Your task to perform on an android device: open app "Etsy: Buy & Sell Unique Items" (install if not already installed) and enter user name: "camp@inbox.com" and password: "unrelated" Image 0: 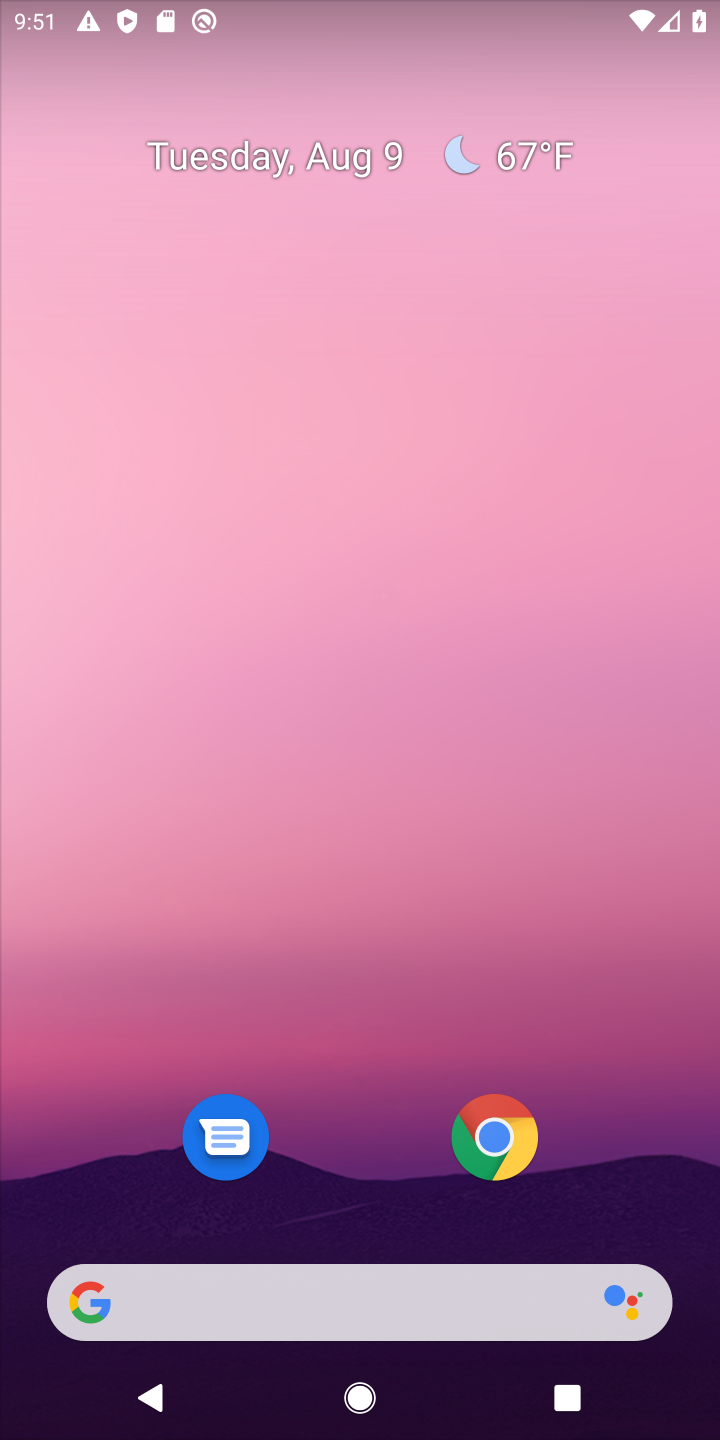
Step 0: drag from (539, 824) to (377, 293)
Your task to perform on an android device: open app "Etsy: Buy & Sell Unique Items" (install if not already installed) and enter user name: "camp@inbox.com" and password: "unrelated" Image 1: 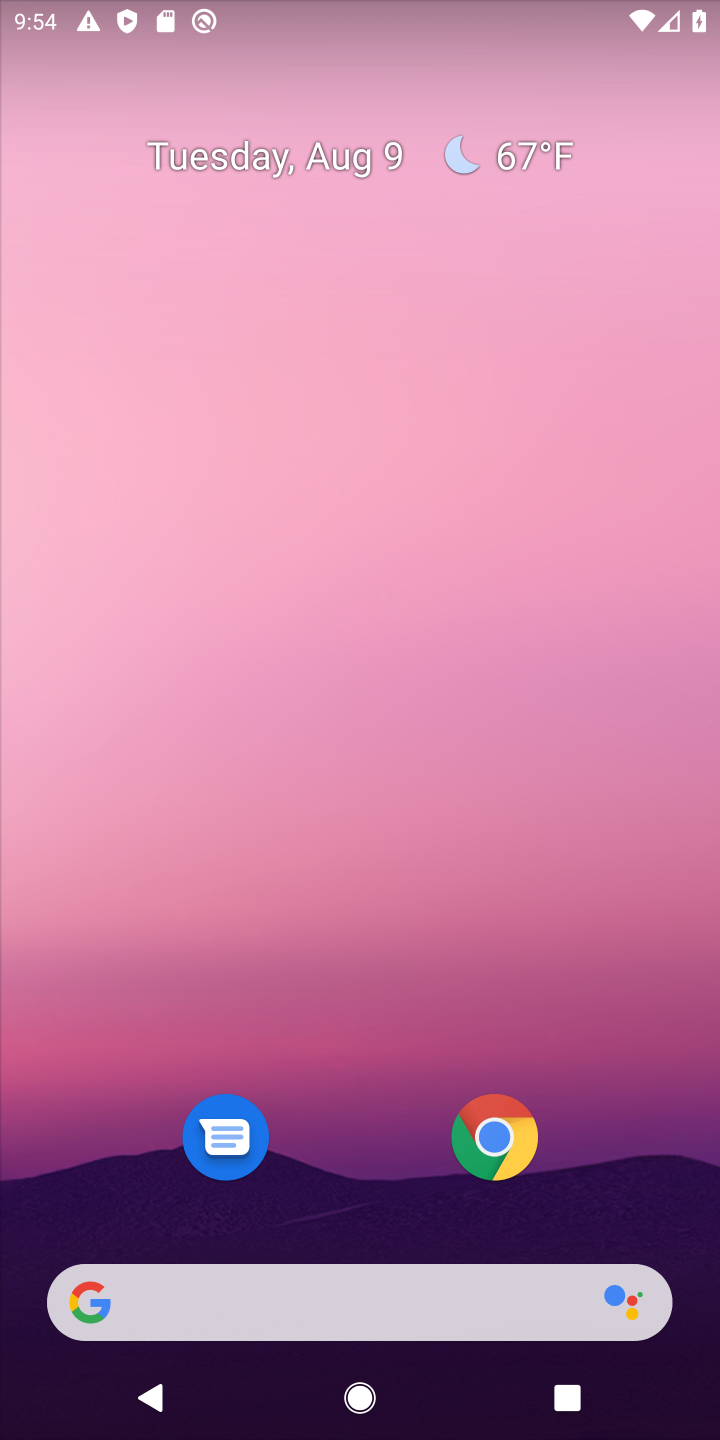
Step 1: drag from (650, 1062) to (420, 33)
Your task to perform on an android device: open app "Etsy: Buy & Sell Unique Items" (install if not already installed) and enter user name: "camp@inbox.com" and password: "unrelated" Image 2: 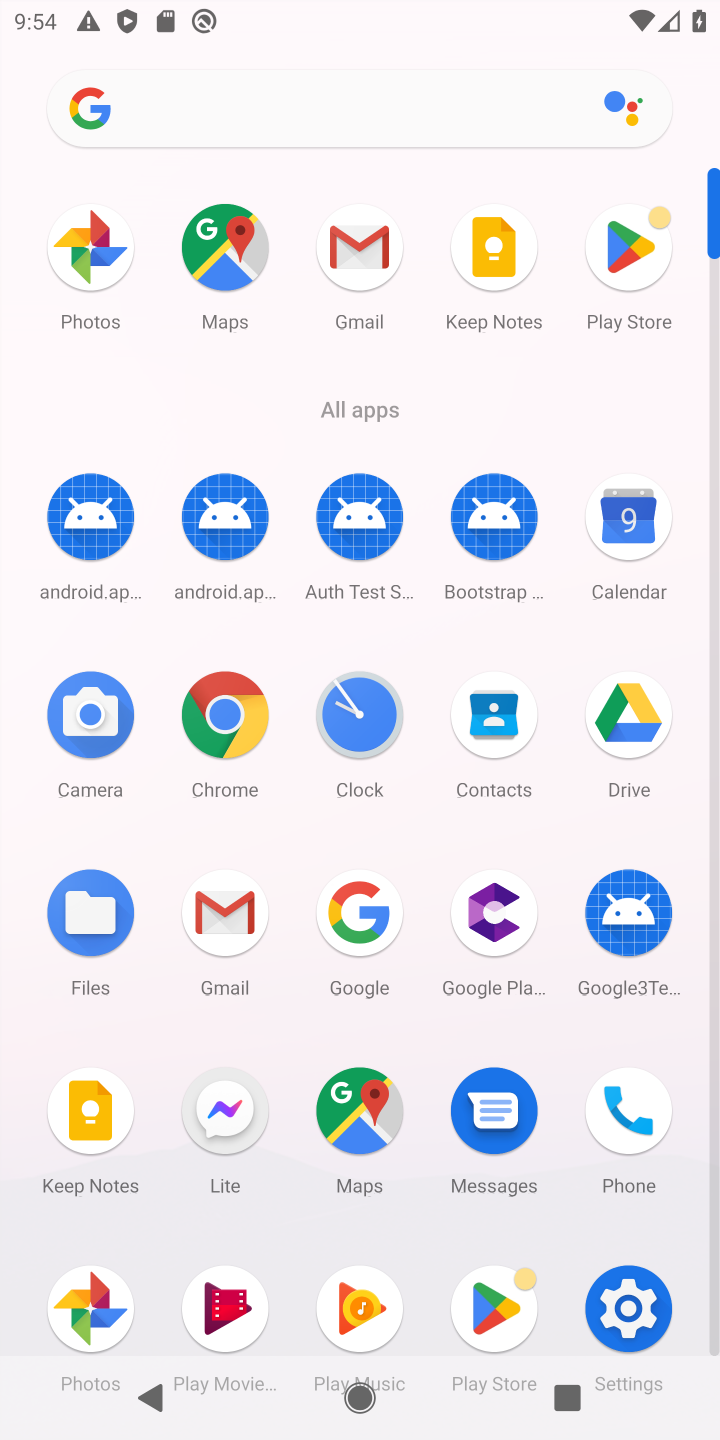
Step 2: click (650, 269)
Your task to perform on an android device: open app "Etsy: Buy & Sell Unique Items" (install if not already installed) and enter user name: "camp@inbox.com" and password: "unrelated" Image 3: 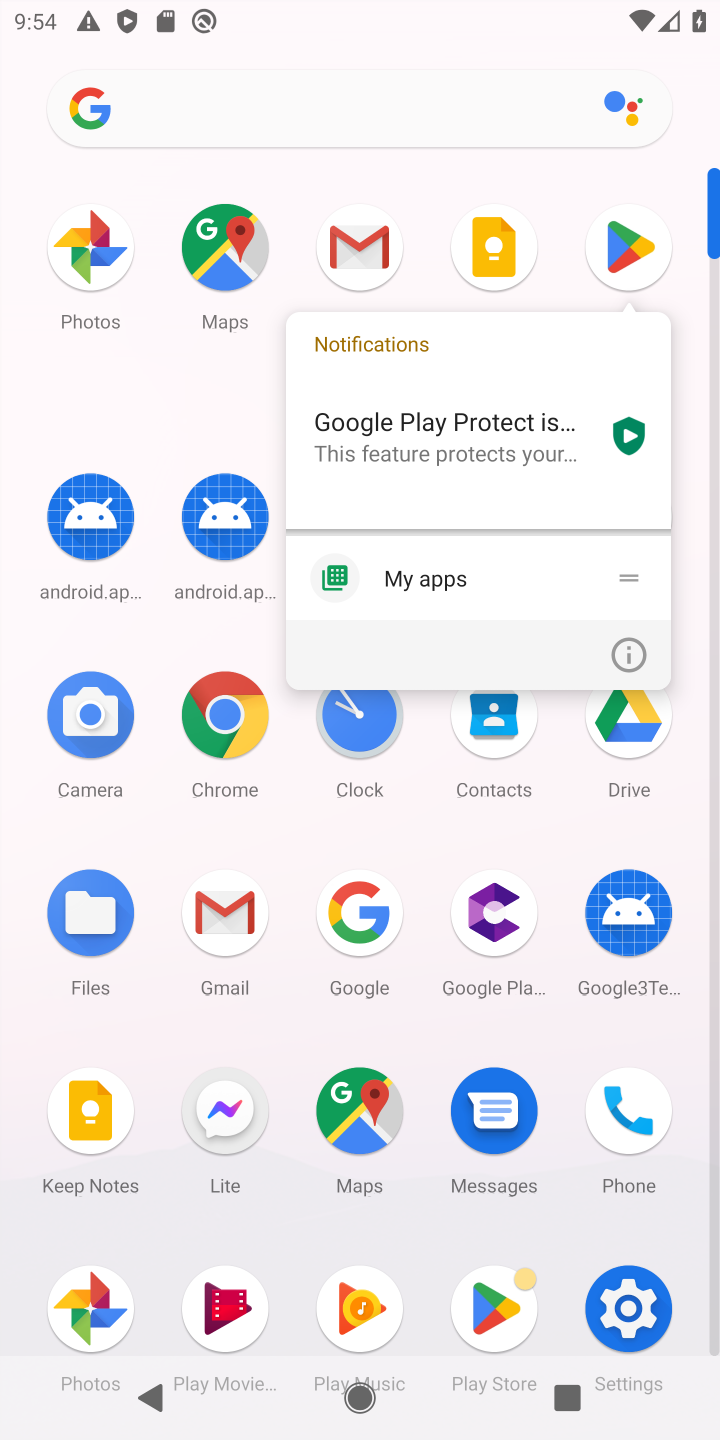
Step 3: click (650, 269)
Your task to perform on an android device: open app "Etsy: Buy & Sell Unique Items" (install if not already installed) and enter user name: "camp@inbox.com" and password: "unrelated" Image 4: 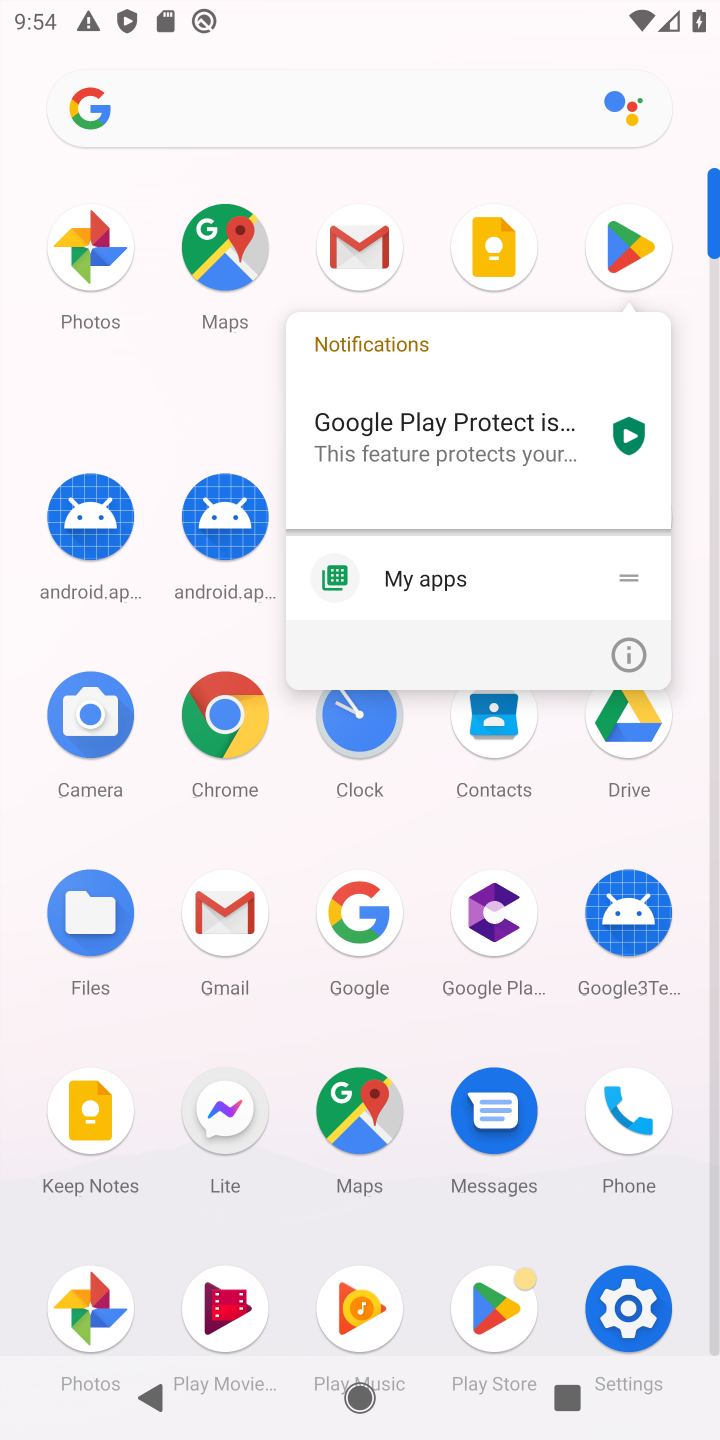
Step 4: click (639, 267)
Your task to perform on an android device: open app "Etsy: Buy & Sell Unique Items" (install if not already installed) and enter user name: "camp@inbox.com" and password: "unrelated" Image 5: 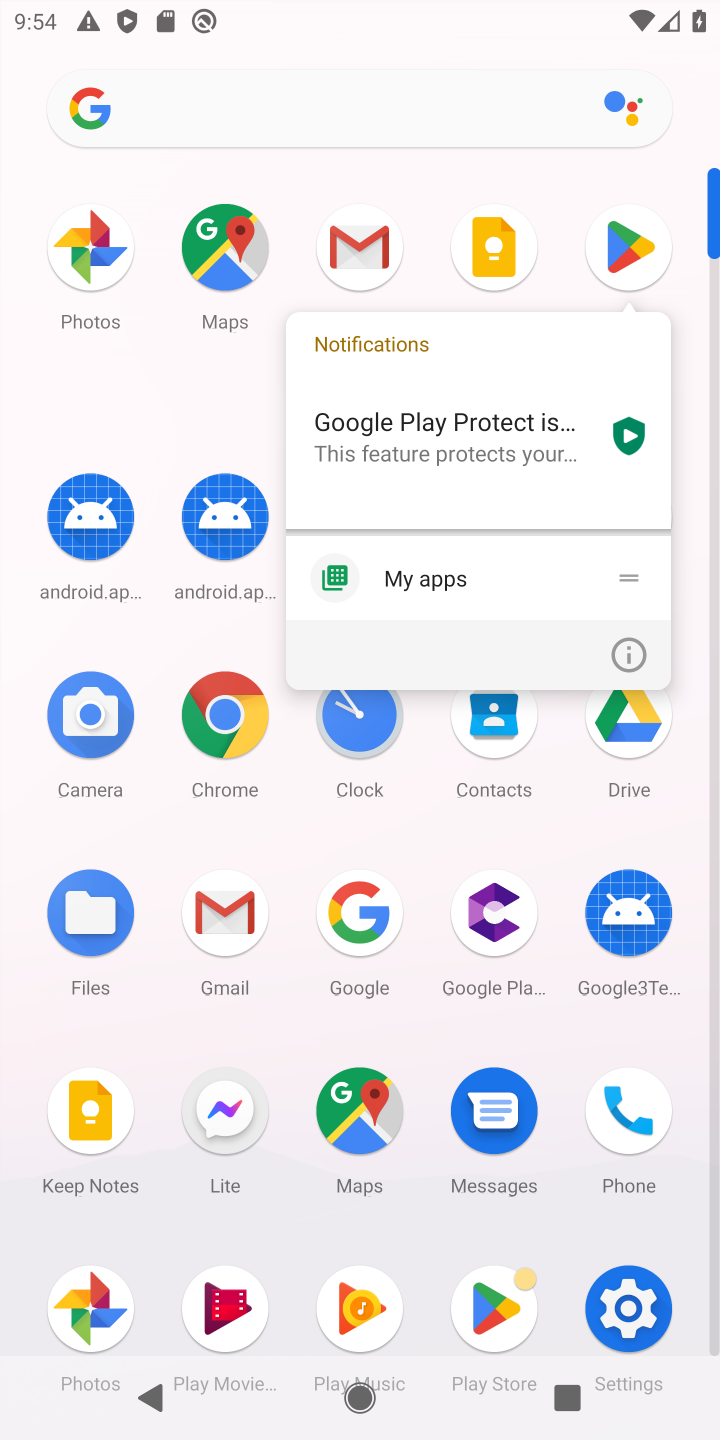
Step 5: click (639, 267)
Your task to perform on an android device: open app "Etsy: Buy & Sell Unique Items" (install if not already installed) and enter user name: "camp@inbox.com" and password: "unrelated" Image 6: 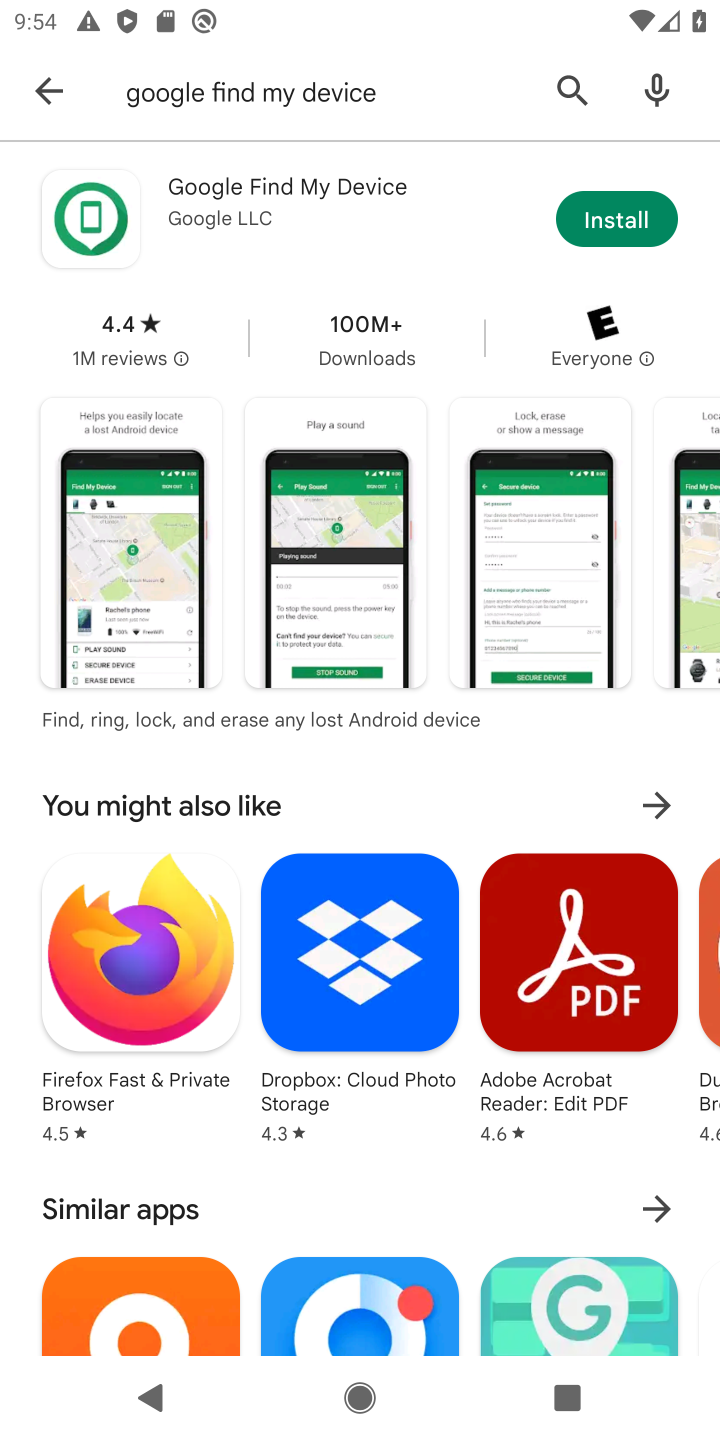
Step 6: press back button
Your task to perform on an android device: open app "Etsy: Buy & Sell Unique Items" (install if not already installed) and enter user name: "camp@inbox.com" and password: "unrelated" Image 7: 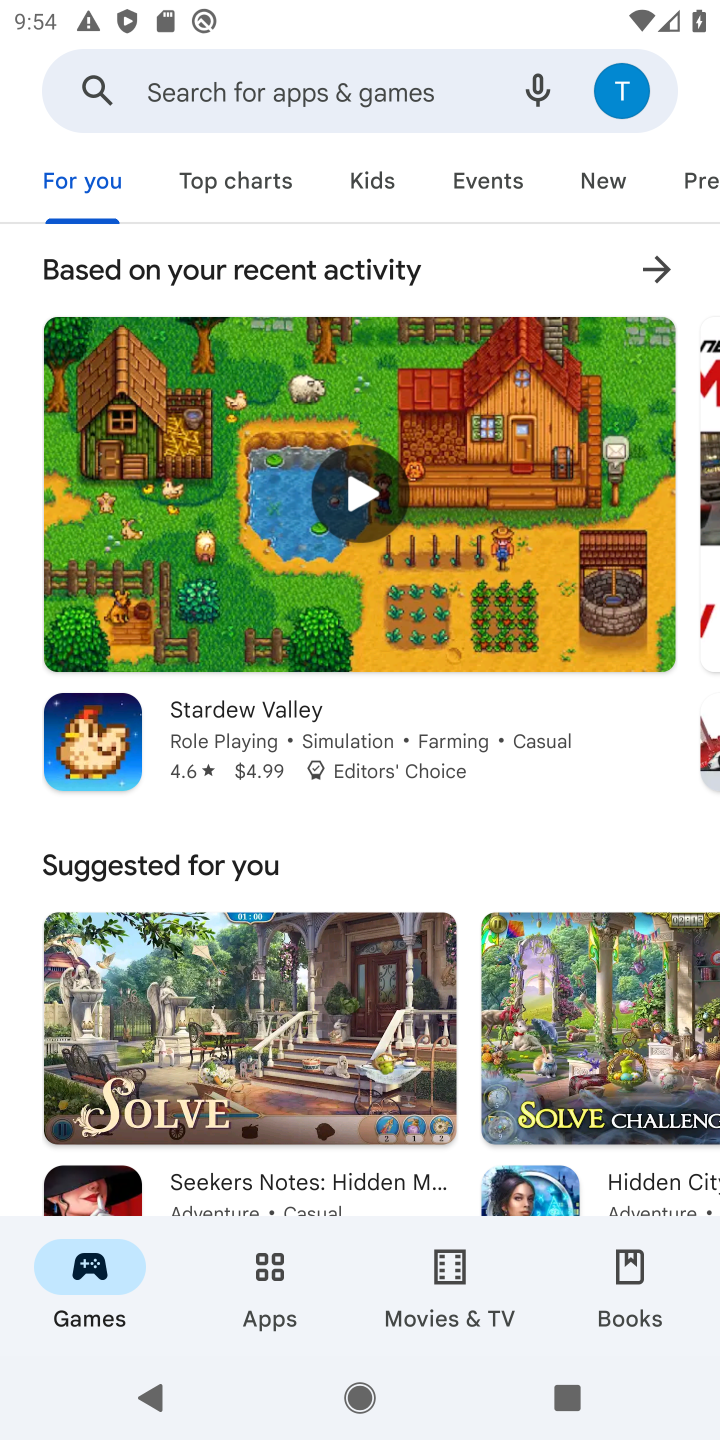
Step 7: click (286, 87)
Your task to perform on an android device: open app "Etsy: Buy & Sell Unique Items" (install if not already installed) and enter user name: "camp@inbox.com" and password: "unrelated" Image 8: 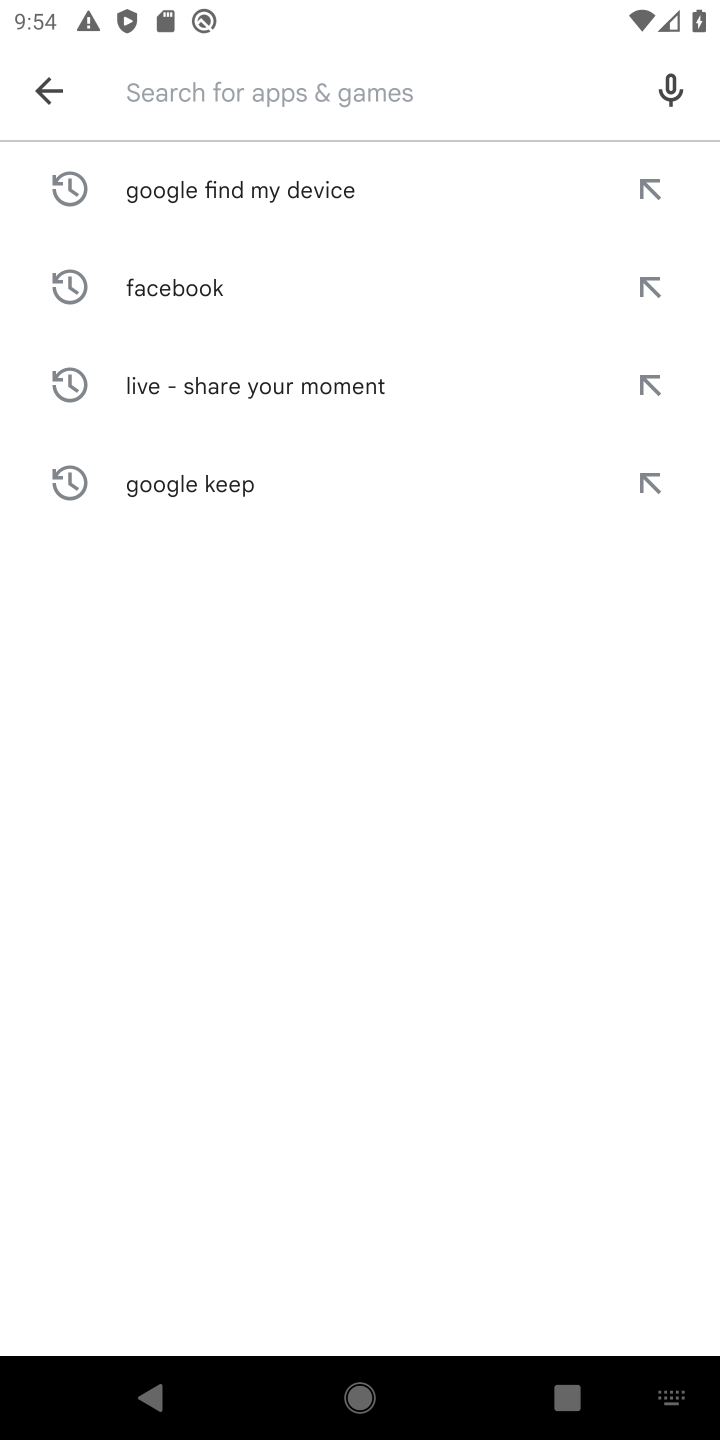
Step 8: type "Etsy: Buy & Sell Unique Items"
Your task to perform on an android device: open app "Etsy: Buy & Sell Unique Items" (install if not already installed) and enter user name: "camp@inbox.com" and password: "unrelated" Image 9: 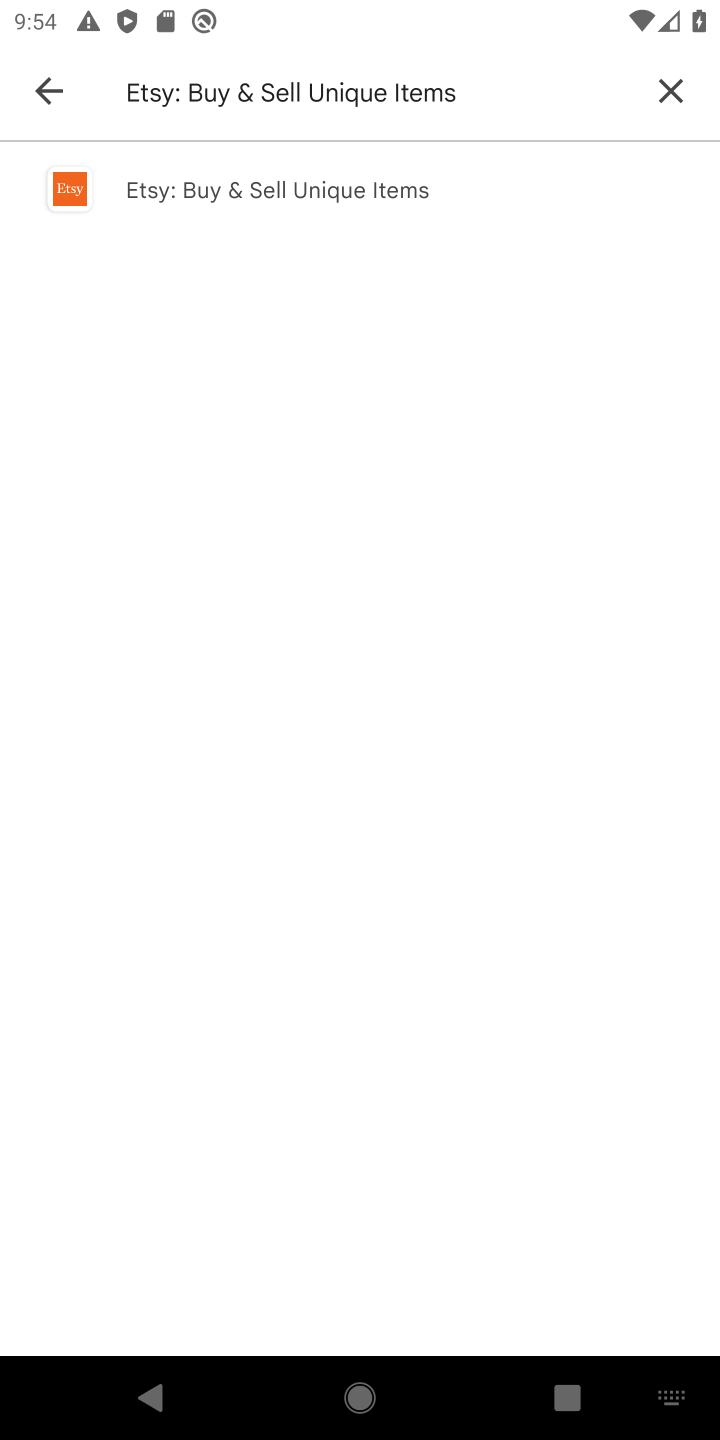
Step 9: click (239, 192)
Your task to perform on an android device: open app "Etsy: Buy & Sell Unique Items" (install if not already installed) and enter user name: "camp@inbox.com" and password: "unrelated" Image 10: 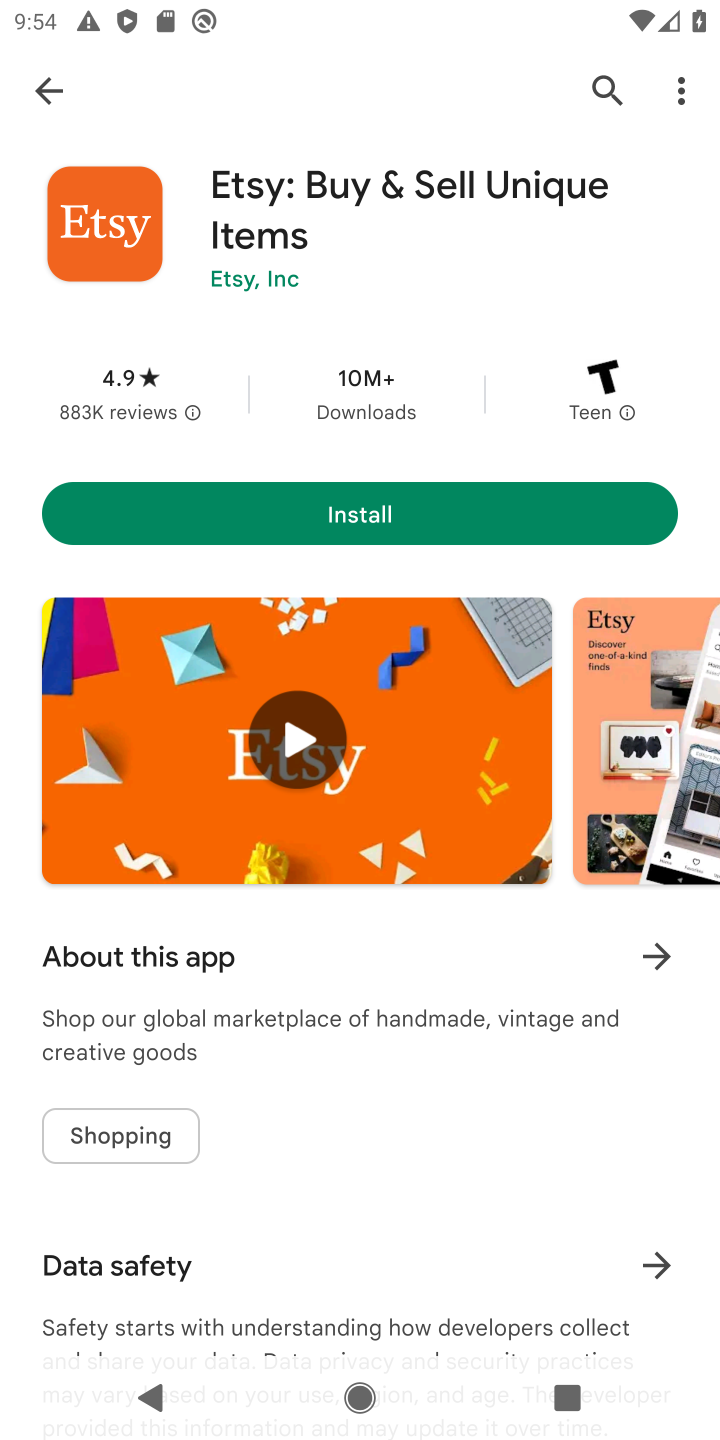
Step 10: task complete